Your task to perform on an android device: turn on location history Image 0: 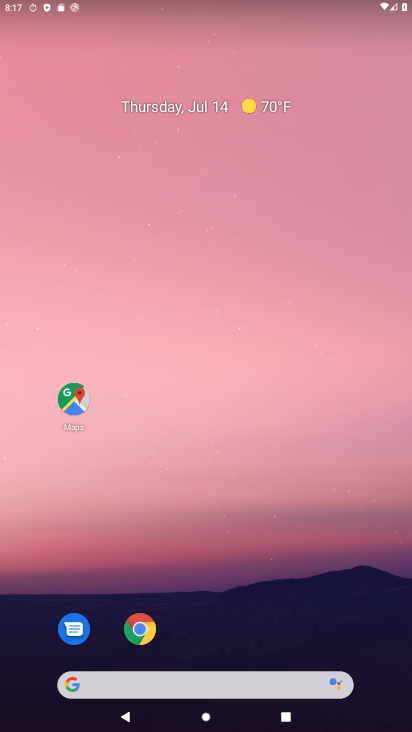
Step 0: drag from (298, 584) to (353, 1)
Your task to perform on an android device: turn on location history Image 1: 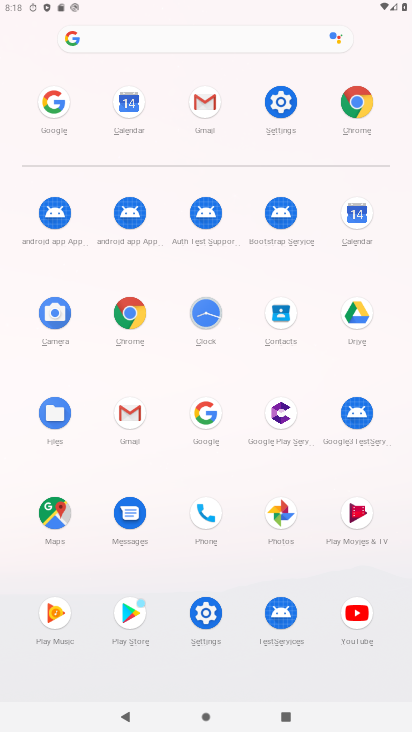
Step 1: click (284, 94)
Your task to perform on an android device: turn on location history Image 2: 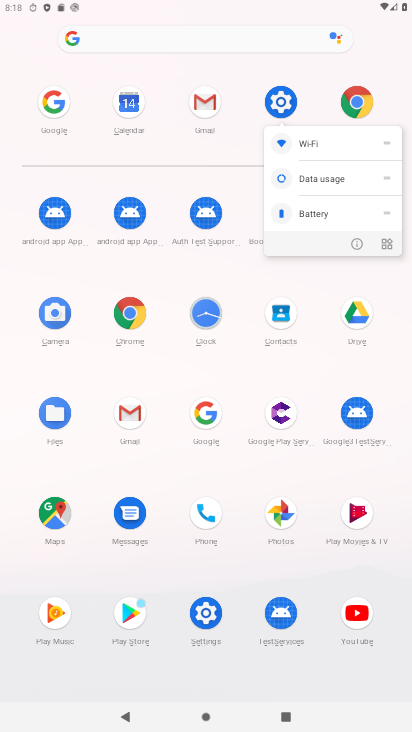
Step 2: click (286, 95)
Your task to perform on an android device: turn on location history Image 3: 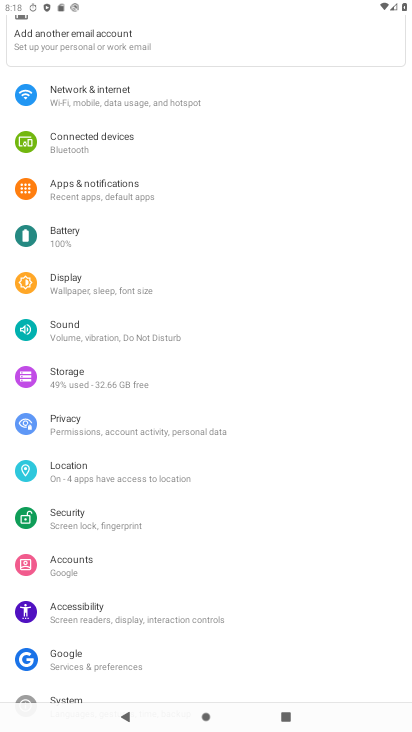
Step 3: click (54, 472)
Your task to perform on an android device: turn on location history Image 4: 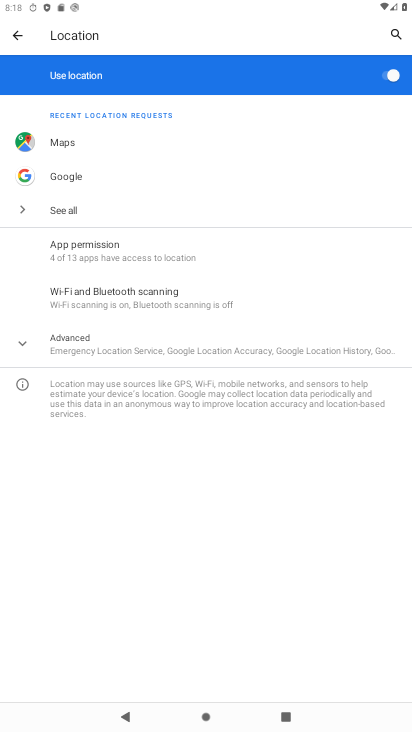
Step 4: task complete